Your task to perform on an android device: visit the assistant section in the google photos Image 0: 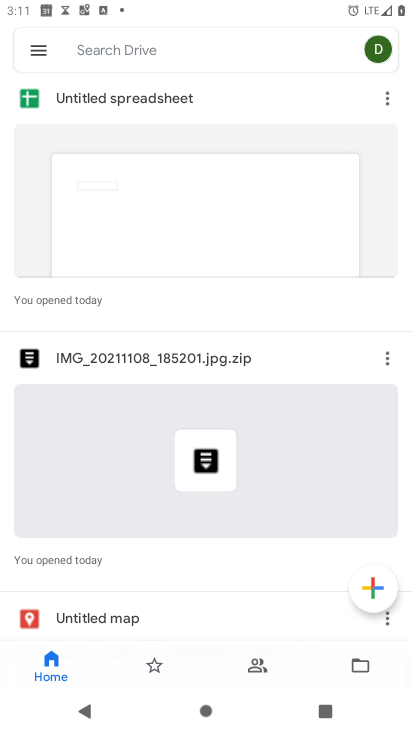
Step 0: drag from (228, 585) to (223, 228)
Your task to perform on an android device: visit the assistant section in the google photos Image 1: 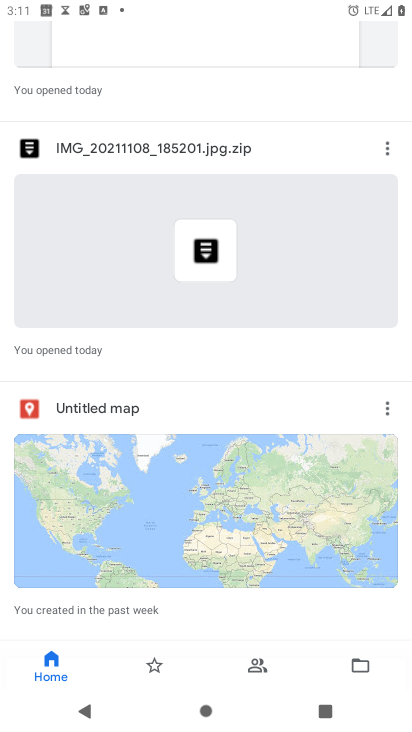
Step 1: press home button
Your task to perform on an android device: visit the assistant section in the google photos Image 2: 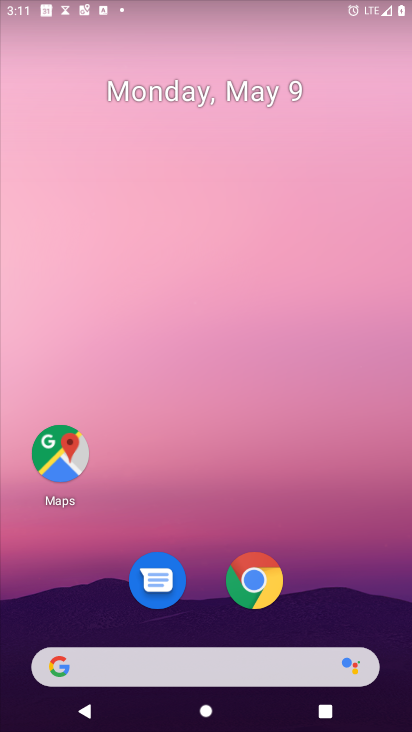
Step 2: drag from (318, 292) to (275, 134)
Your task to perform on an android device: visit the assistant section in the google photos Image 3: 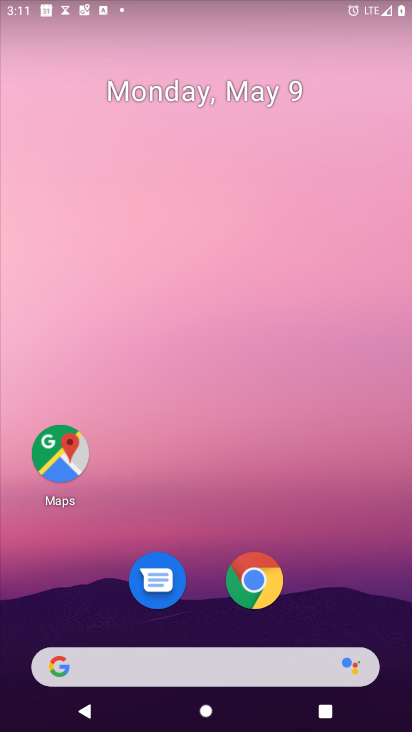
Step 3: drag from (337, 548) to (317, 19)
Your task to perform on an android device: visit the assistant section in the google photos Image 4: 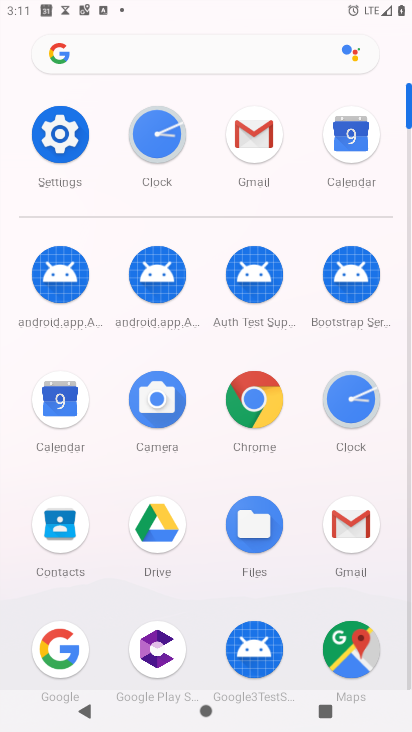
Step 4: drag from (231, 564) to (260, 194)
Your task to perform on an android device: visit the assistant section in the google photos Image 5: 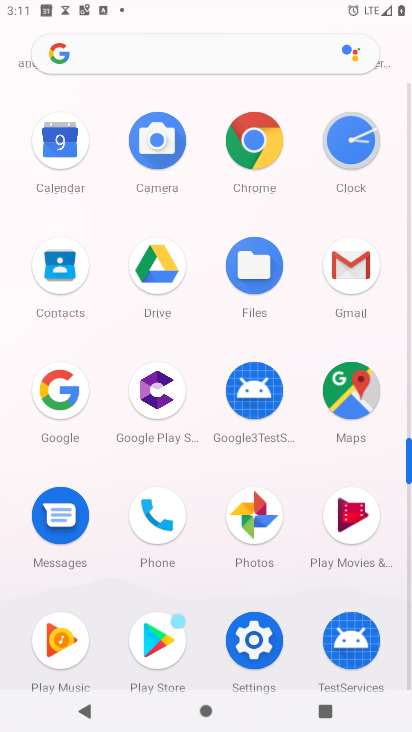
Step 5: click (248, 513)
Your task to perform on an android device: visit the assistant section in the google photos Image 6: 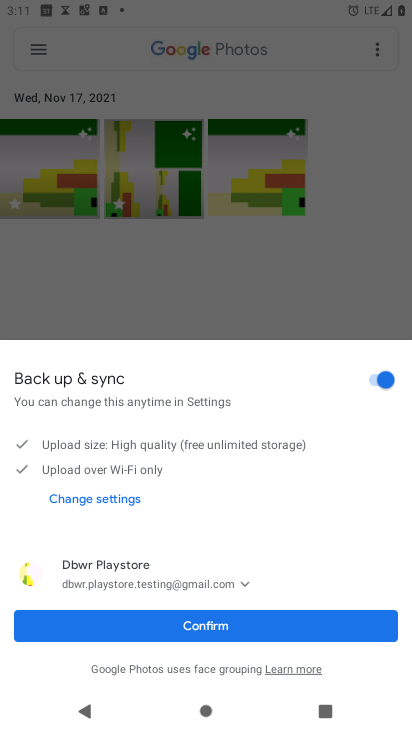
Step 6: click (303, 624)
Your task to perform on an android device: visit the assistant section in the google photos Image 7: 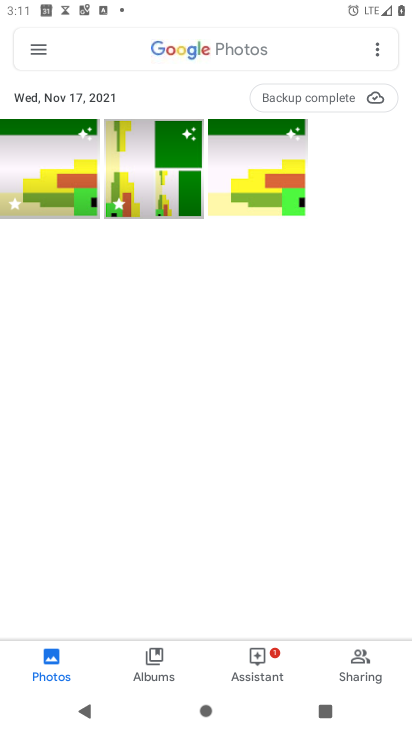
Step 7: click (272, 661)
Your task to perform on an android device: visit the assistant section in the google photos Image 8: 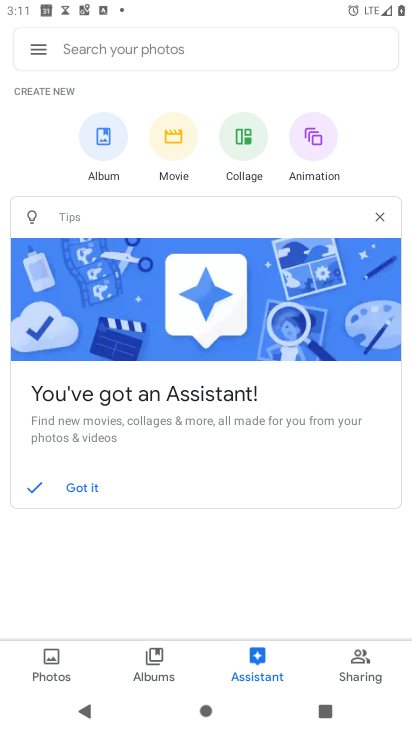
Step 8: task complete